Your task to perform on an android device: Open Google Maps and go to "Timeline" Image 0: 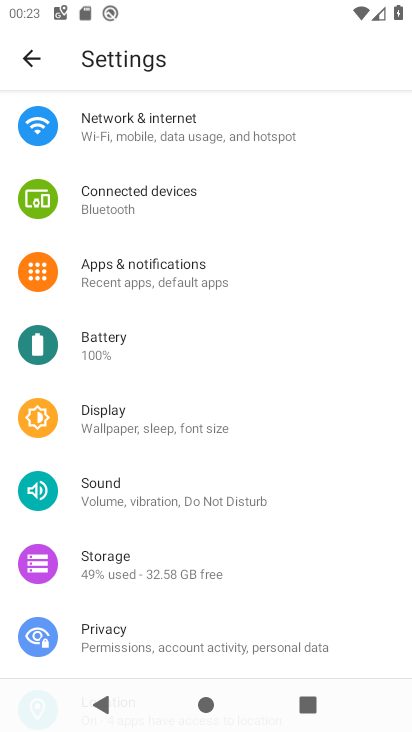
Step 0: press home button
Your task to perform on an android device: Open Google Maps and go to "Timeline" Image 1: 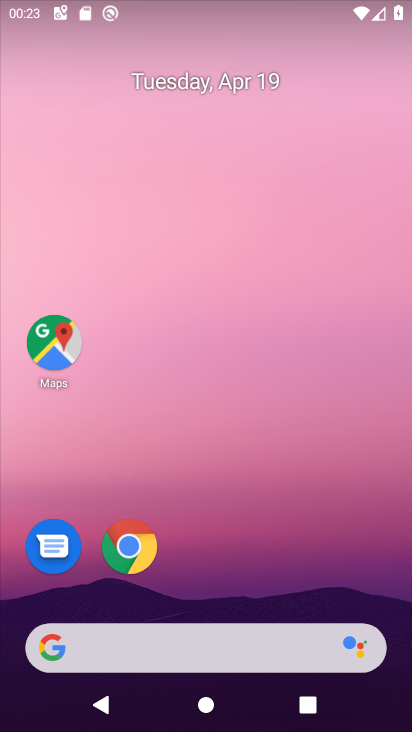
Step 1: click (53, 337)
Your task to perform on an android device: Open Google Maps and go to "Timeline" Image 2: 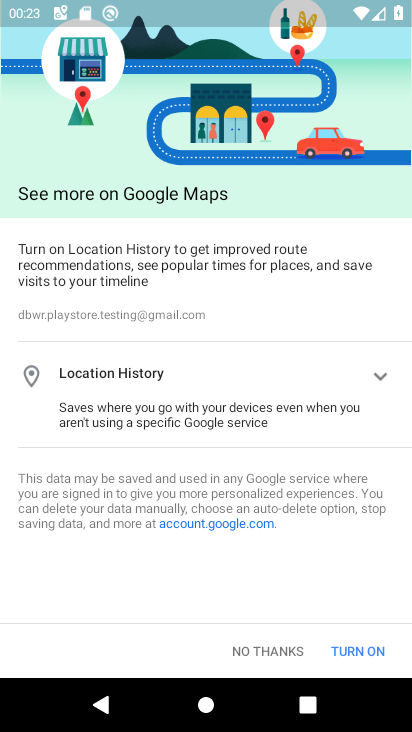
Step 2: click (275, 647)
Your task to perform on an android device: Open Google Maps and go to "Timeline" Image 3: 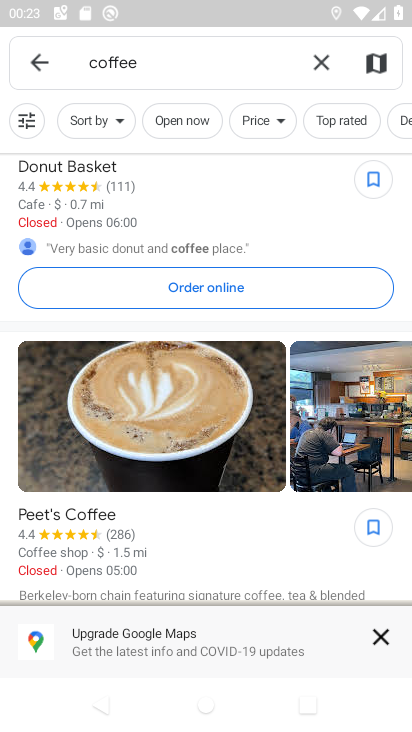
Step 3: drag from (224, 535) to (239, 223)
Your task to perform on an android device: Open Google Maps and go to "Timeline" Image 4: 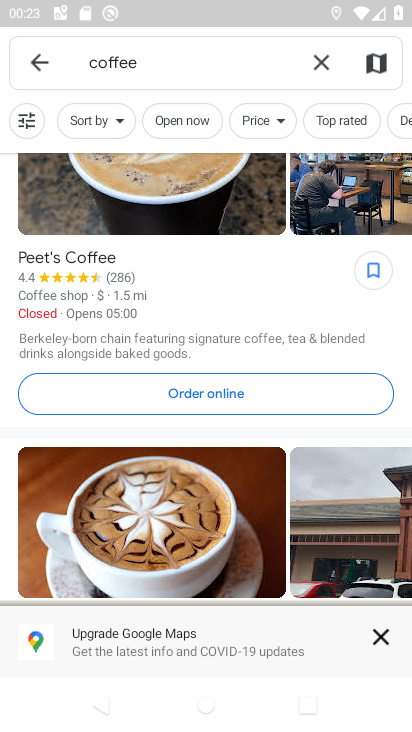
Step 4: click (37, 67)
Your task to perform on an android device: Open Google Maps and go to "Timeline" Image 5: 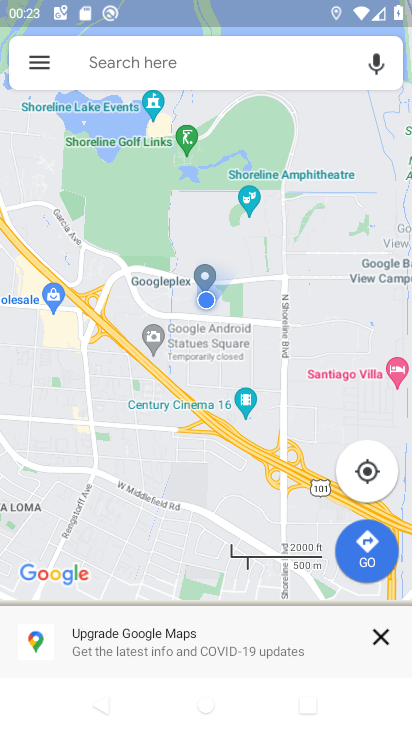
Step 5: click (38, 67)
Your task to perform on an android device: Open Google Maps and go to "Timeline" Image 6: 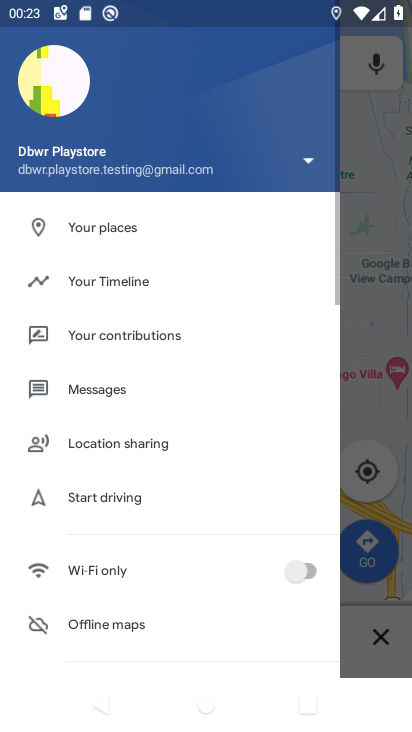
Step 6: click (106, 282)
Your task to perform on an android device: Open Google Maps and go to "Timeline" Image 7: 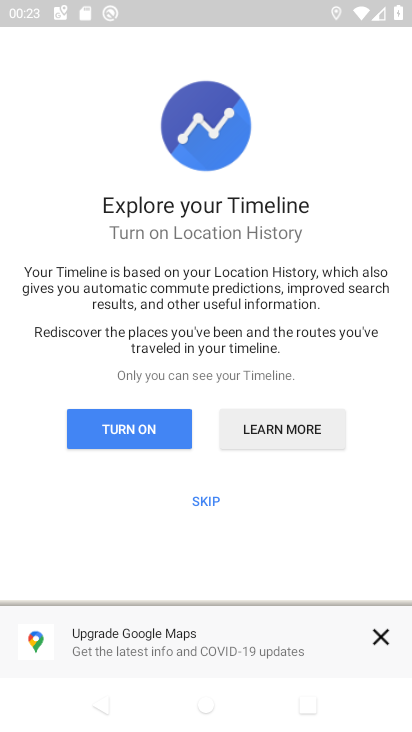
Step 7: click (112, 429)
Your task to perform on an android device: Open Google Maps and go to "Timeline" Image 8: 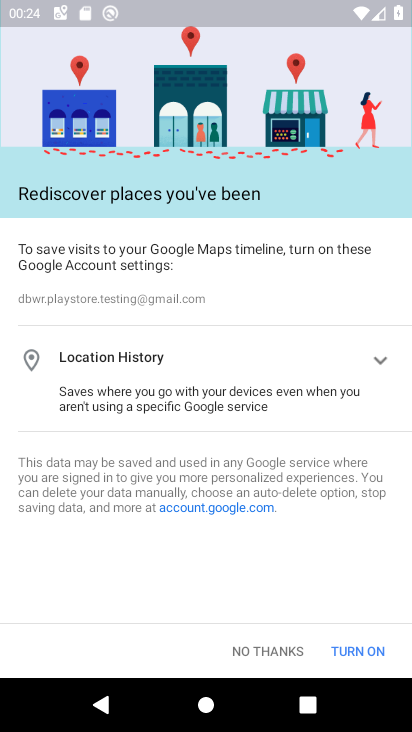
Step 8: click (350, 649)
Your task to perform on an android device: Open Google Maps and go to "Timeline" Image 9: 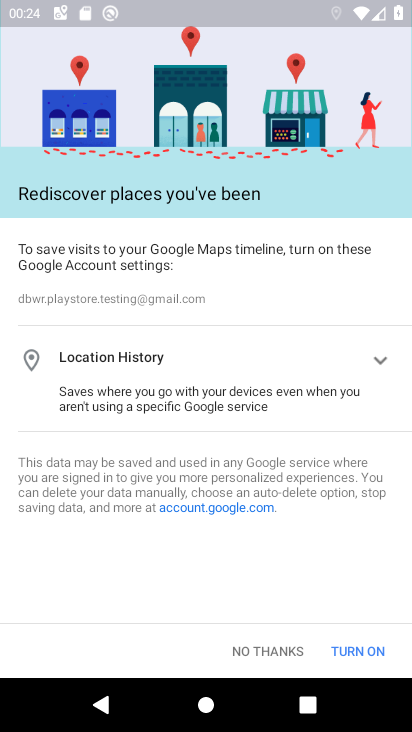
Step 9: task complete